Your task to perform on an android device: toggle sleep mode Image 0: 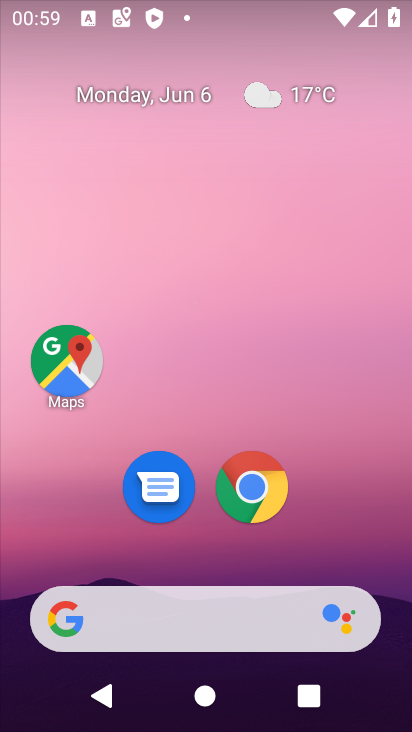
Step 0: drag from (396, 610) to (323, 25)
Your task to perform on an android device: toggle sleep mode Image 1: 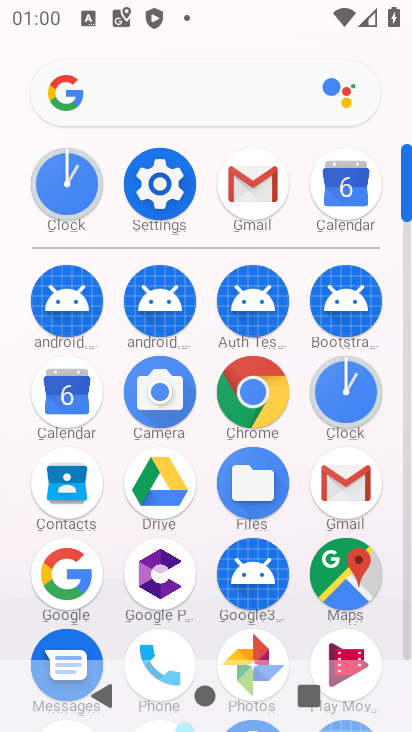
Step 1: click (409, 642)
Your task to perform on an android device: toggle sleep mode Image 2: 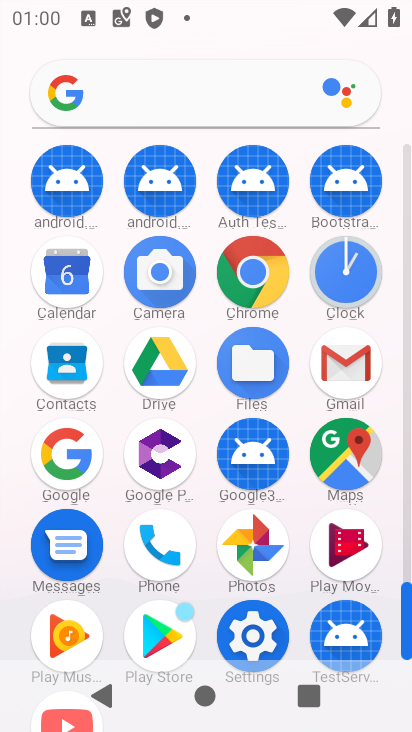
Step 2: click (255, 635)
Your task to perform on an android device: toggle sleep mode Image 3: 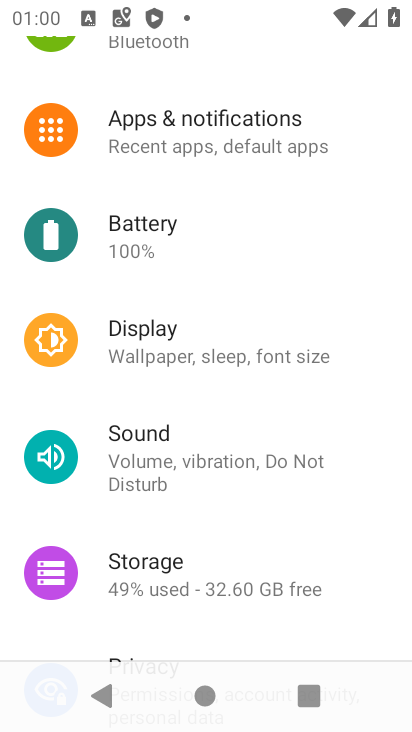
Step 3: click (185, 346)
Your task to perform on an android device: toggle sleep mode Image 4: 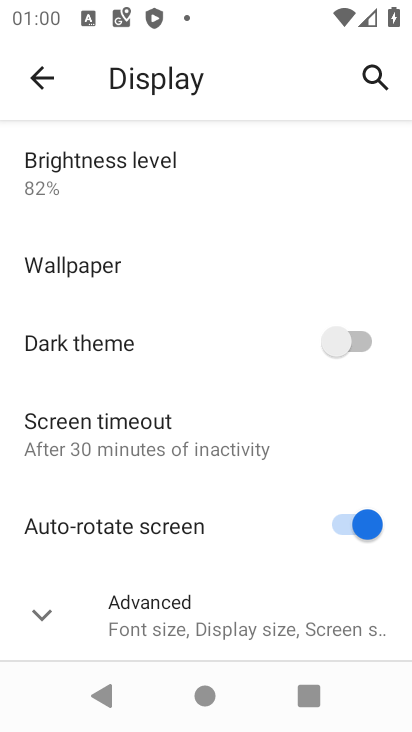
Step 4: click (44, 617)
Your task to perform on an android device: toggle sleep mode Image 5: 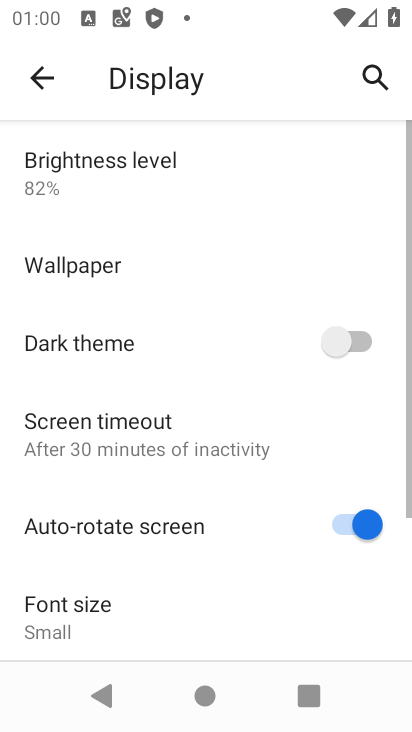
Step 5: task complete